Your task to perform on an android device: find photos in the google photos app Image 0: 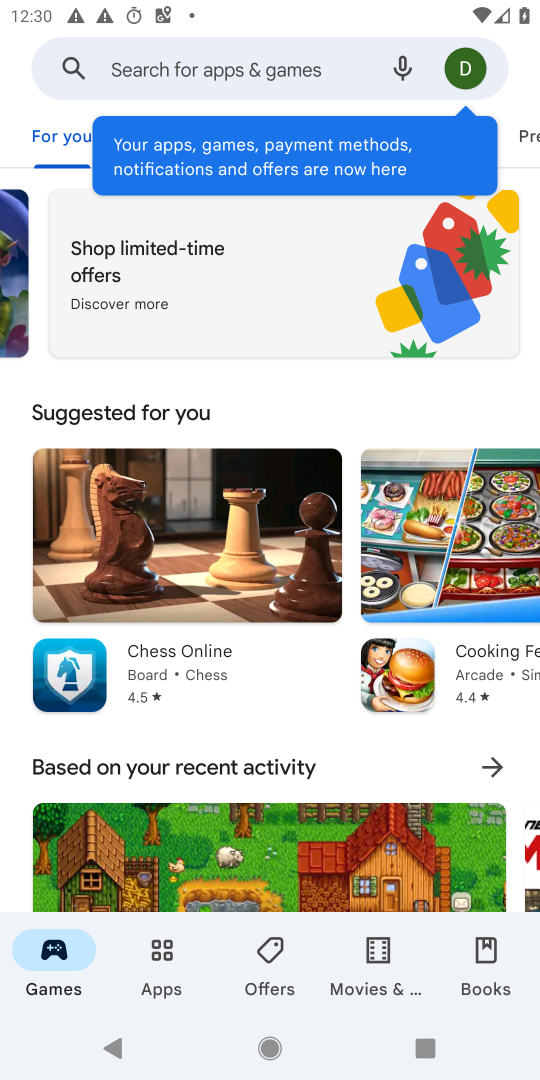
Step 0: press home button
Your task to perform on an android device: find photos in the google photos app Image 1: 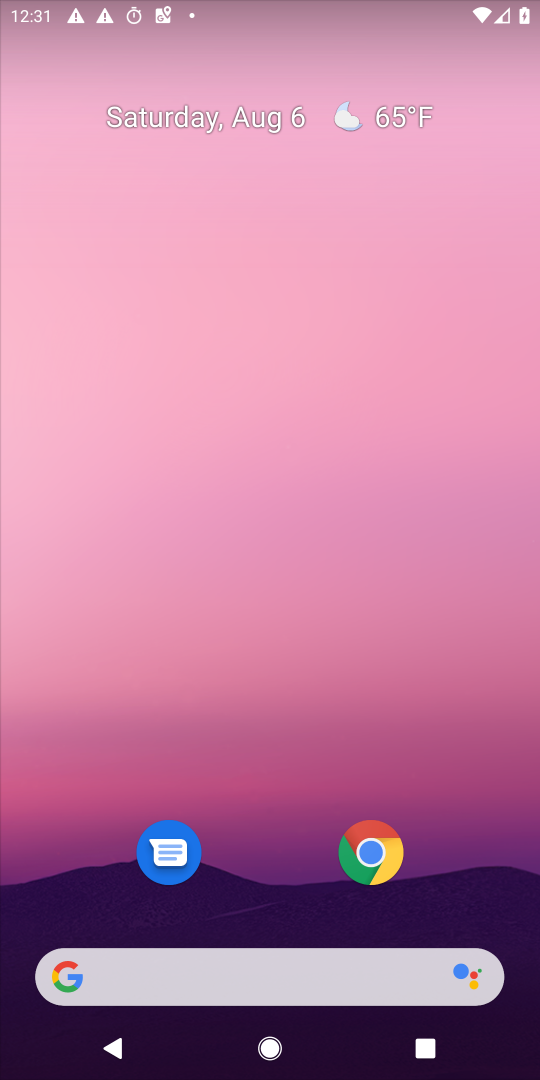
Step 1: drag from (313, 1005) to (394, 306)
Your task to perform on an android device: find photos in the google photos app Image 2: 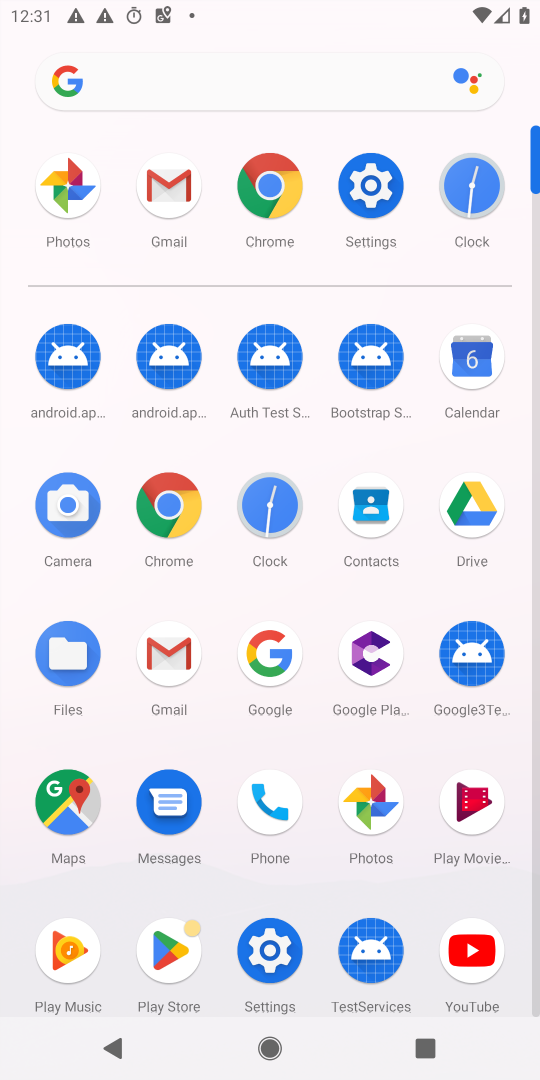
Step 2: click (88, 186)
Your task to perform on an android device: find photos in the google photos app Image 3: 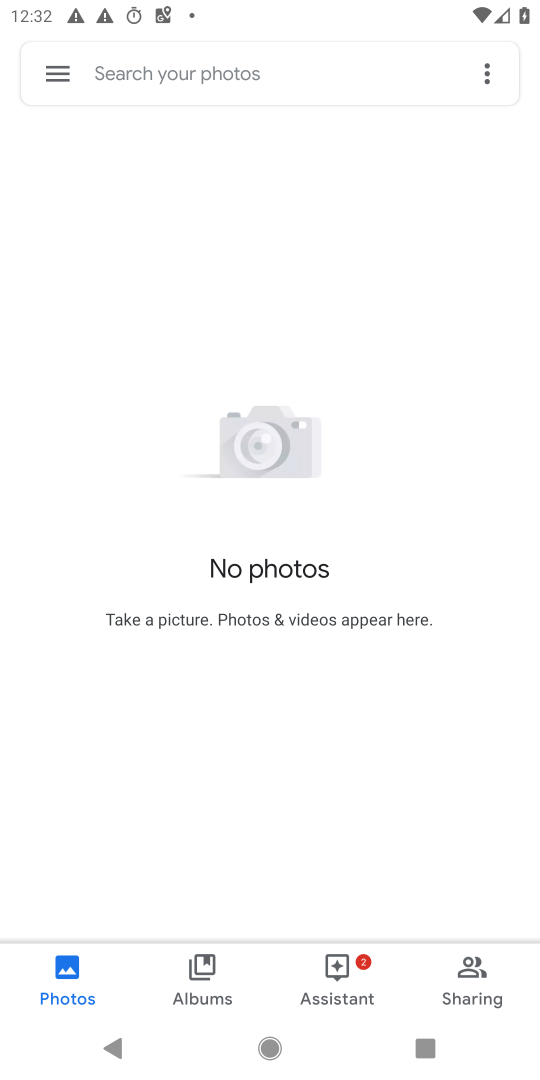
Step 3: task complete